Your task to perform on an android device: Open the calendar app, open the side menu, and click the "Day" option Image 0: 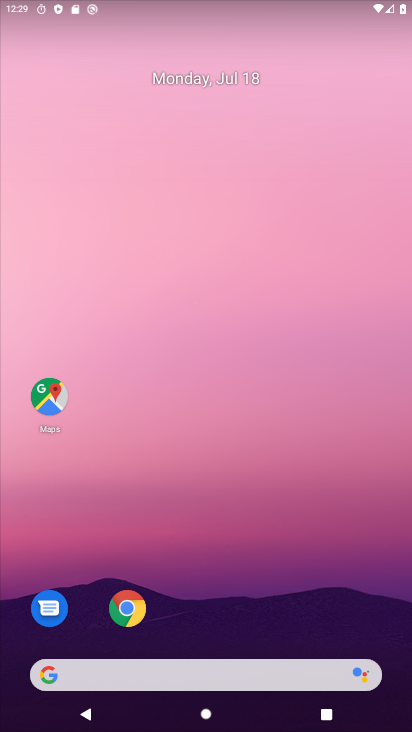
Step 0: drag from (336, 526) to (20, 255)
Your task to perform on an android device: Open the calendar app, open the side menu, and click the "Day" option Image 1: 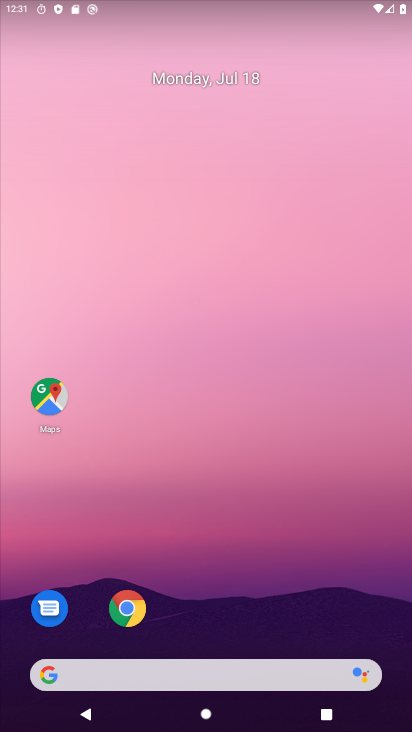
Step 1: drag from (235, 644) to (343, 138)
Your task to perform on an android device: Open the calendar app, open the side menu, and click the "Day" option Image 2: 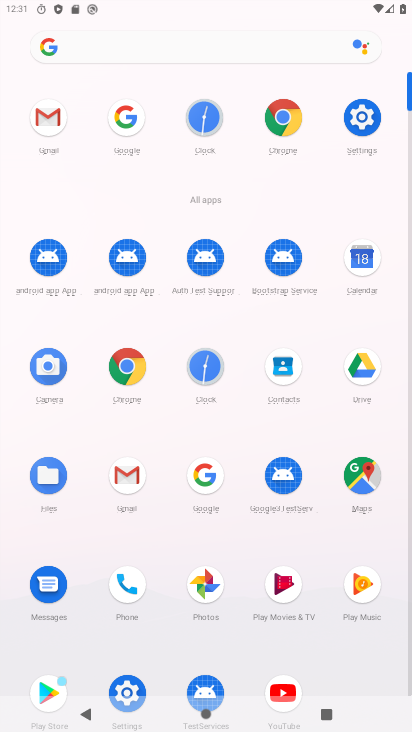
Step 2: click (351, 268)
Your task to perform on an android device: Open the calendar app, open the side menu, and click the "Day" option Image 3: 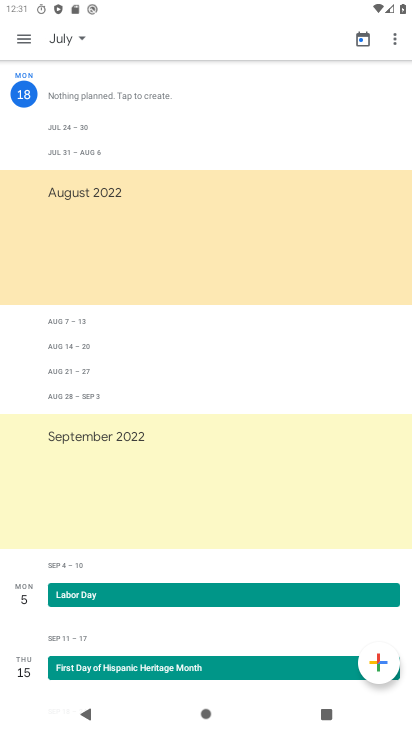
Step 3: click (19, 34)
Your task to perform on an android device: Open the calendar app, open the side menu, and click the "Day" option Image 4: 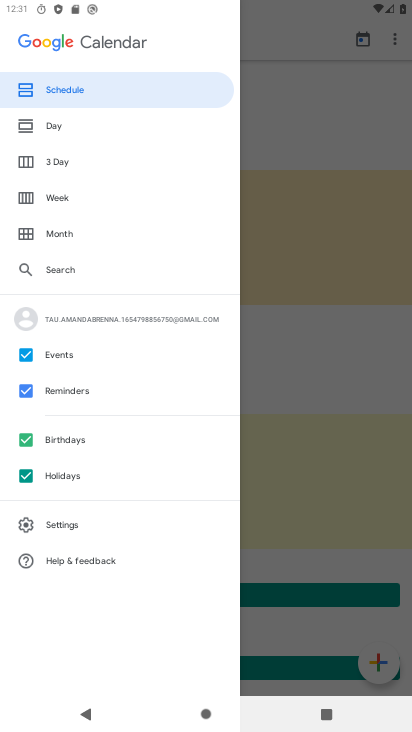
Step 4: click (55, 134)
Your task to perform on an android device: Open the calendar app, open the side menu, and click the "Day" option Image 5: 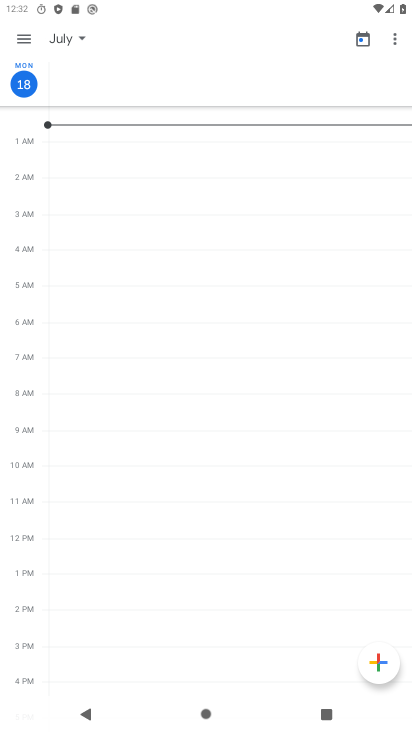
Step 5: click (25, 41)
Your task to perform on an android device: Open the calendar app, open the side menu, and click the "Day" option Image 6: 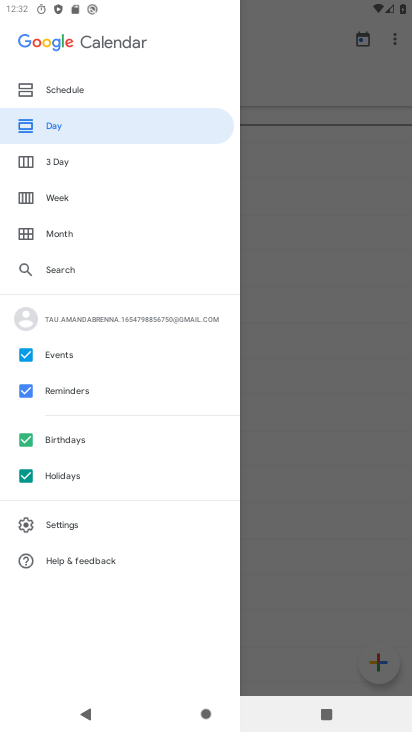
Step 6: task complete